Your task to perform on an android device: Open eBay Image 0: 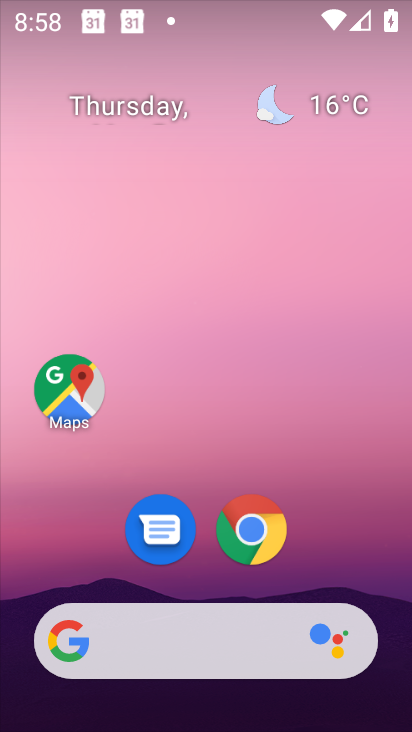
Step 0: click (261, 535)
Your task to perform on an android device: Open eBay Image 1: 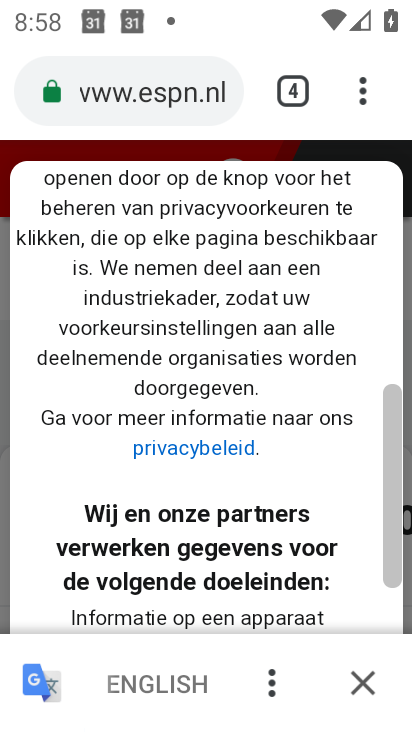
Step 1: click (358, 98)
Your task to perform on an android device: Open eBay Image 2: 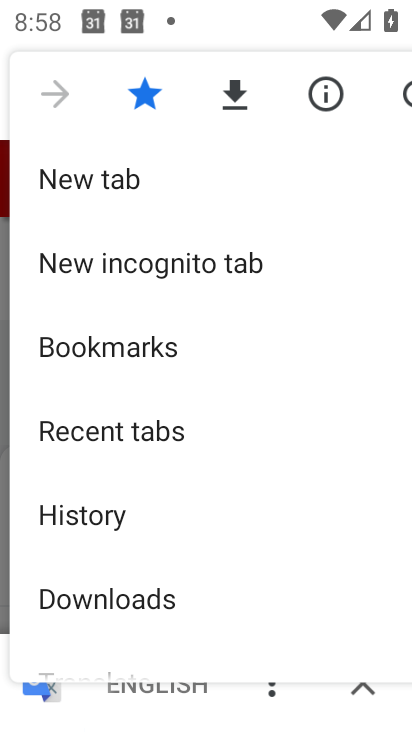
Step 2: click (140, 175)
Your task to perform on an android device: Open eBay Image 3: 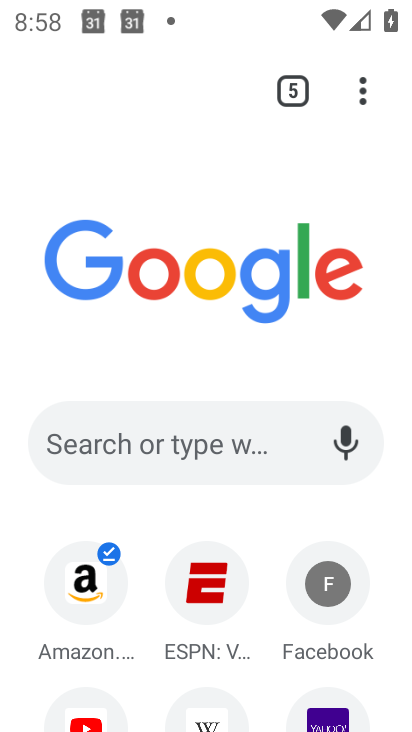
Step 3: click (170, 433)
Your task to perform on an android device: Open eBay Image 4: 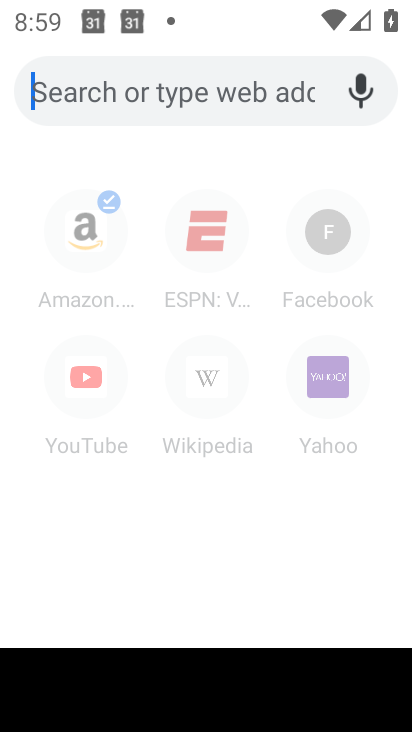
Step 4: type "ebay"
Your task to perform on an android device: Open eBay Image 5: 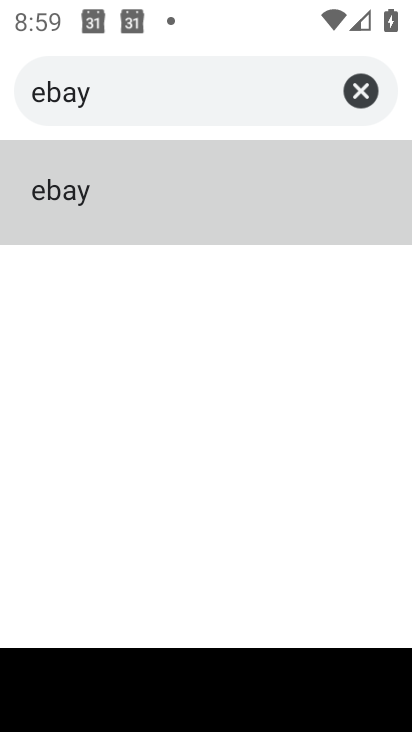
Step 5: click (152, 216)
Your task to perform on an android device: Open eBay Image 6: 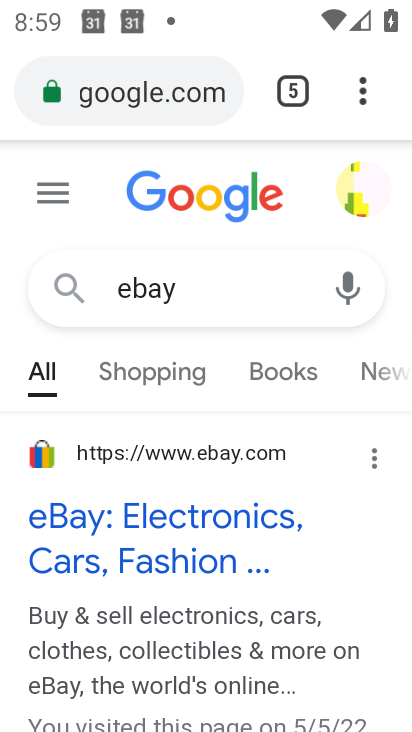
Step 6: task complete